Your task to perform on an android device: turn notification dots off Image 0: 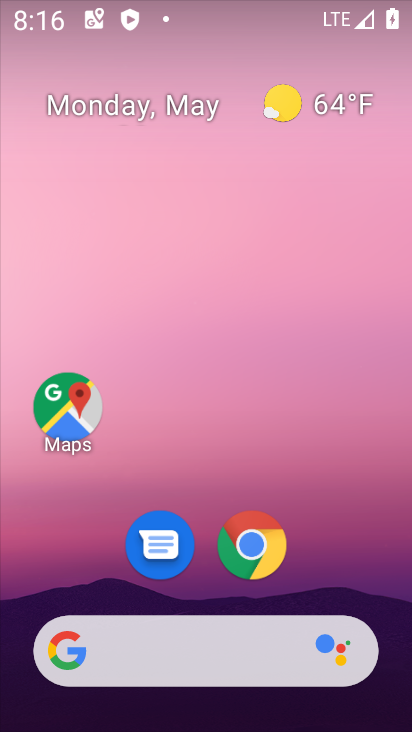
Step 0: drag from (215, 639) to (221, 91)
Your task to perform on an android device: turn notification dots off Image 1: 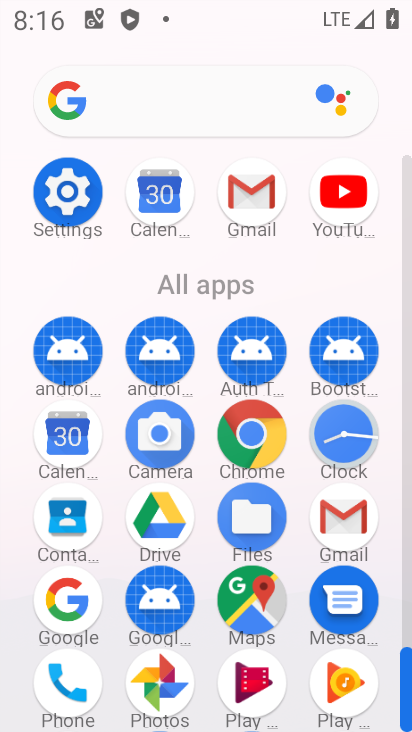
Step 1: click (70, 182)
Your task to perform on an android device: turn notification dots off Image 2: 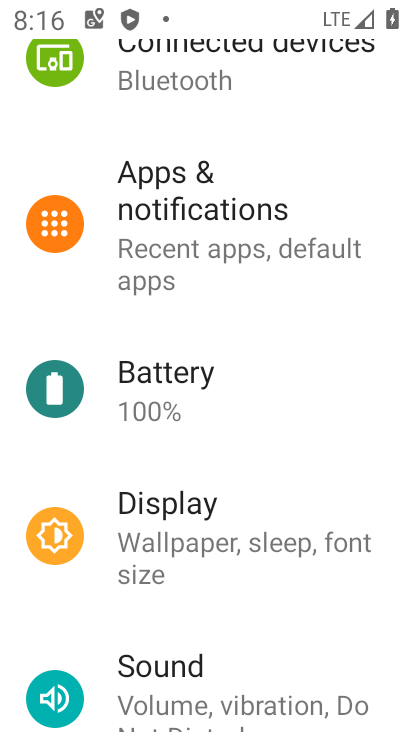
Step 2: click (208, 258)
Your task to perform on an android device: turn notification dots off Image 3: 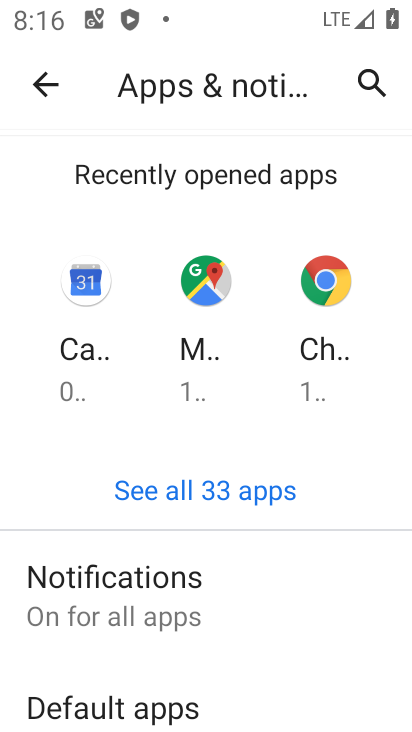
Step 3: click (202, 609)
Your task to perform on an android device: turn notification dots off Image 4: 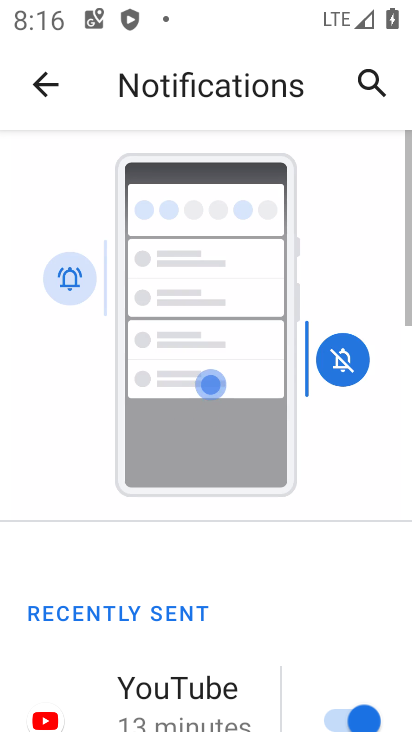
Step 4: drag from (162, 601) to (11, 34)
Your task to perform on an android device: turn notification dots off Image 5: 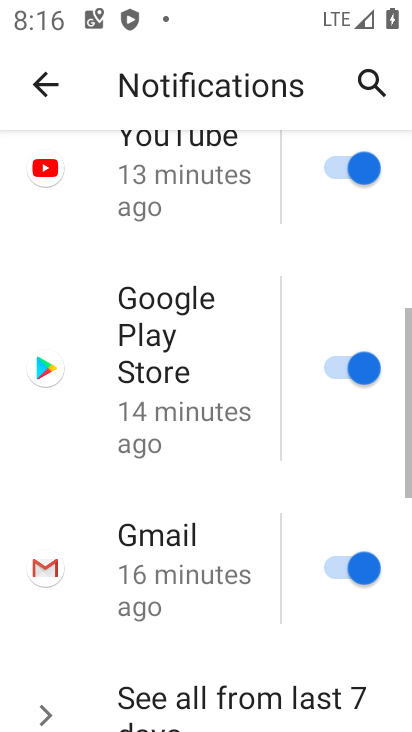
Step 5: drag from (178, 429) to (157, 99)
Your task to perform on an android device: turn notification dots off Image 6: 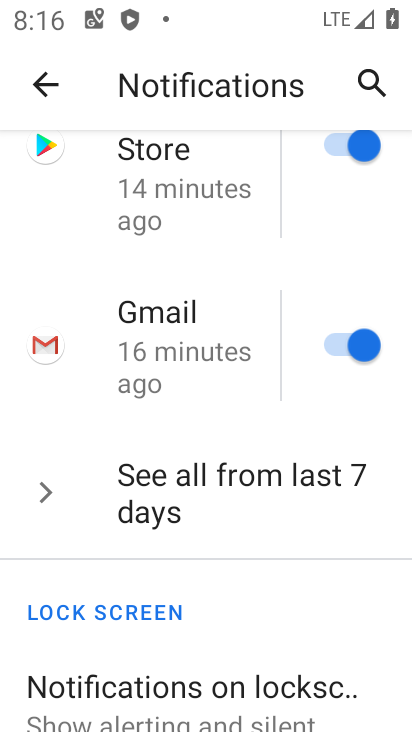
Step 6: drag from (233, 618) to (104, 30)
Your task to perform on an android device: turn notification dots off Image 7: 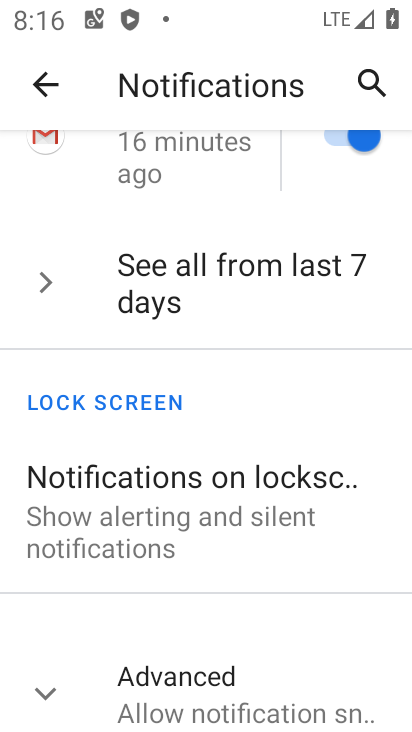
Step 7: click (157, 667)
Your task to perform on an android device: turn notification dots off Image 8: 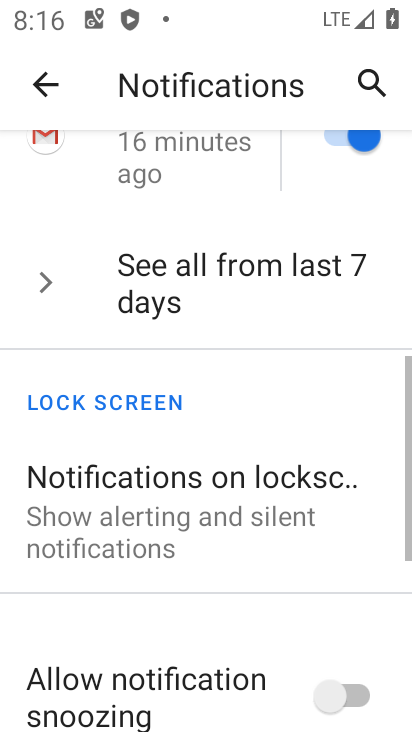
Step 8: drag from (223, 646) to (138, 29)
Your task to perform on an android device: turn notification dots off Image 9: 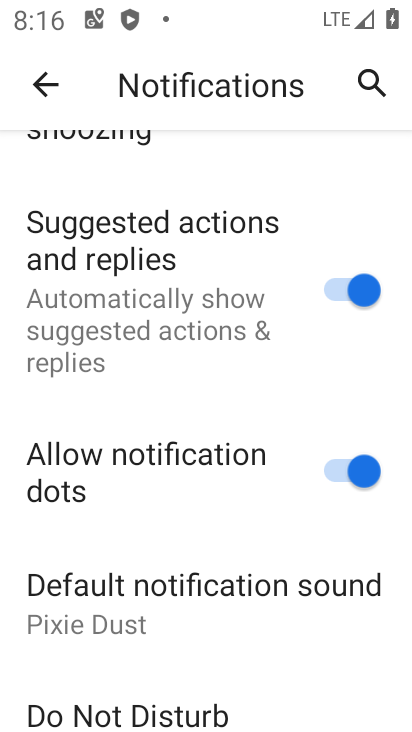
Step 9: click (341, 474)
Your task to perform on an android device: turn notification dots off Image 10: 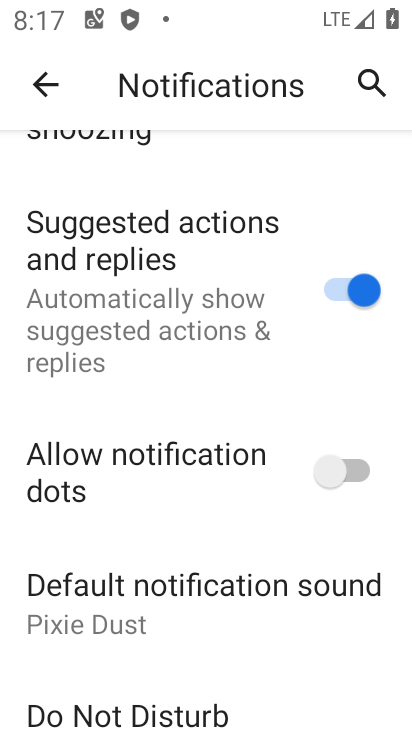
Step 10: task complete